Your task to perform on an android device: delete location history Image 0: 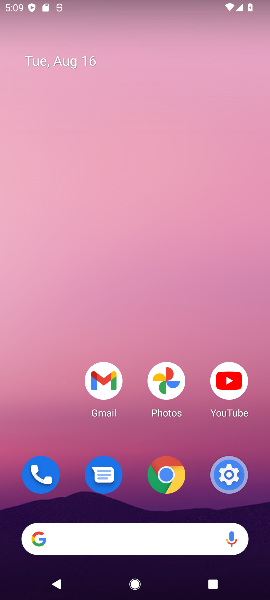
Step 0: drag from (200, 500) to (81, 0)
Your task to perform on an android device: delete location history Image 1: 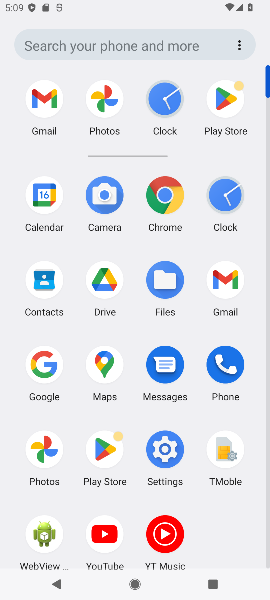
Step 1: click (163, 434)
Your task to perform on an android device: delete location history Image 2: 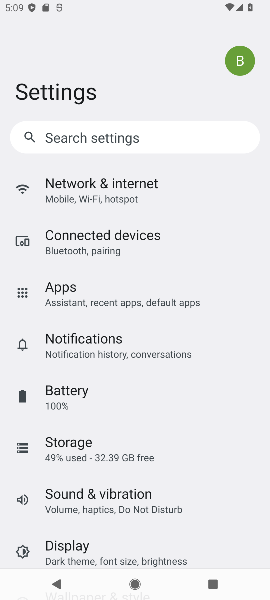
Step 2: drag from (97, 517) to (59, 112)
Your task to perform on an android device: delete location history Image 3: 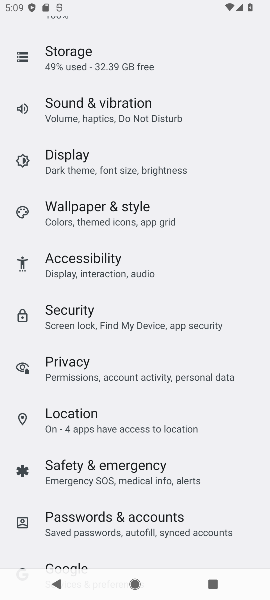
Step 3: click (69, 412)
Your task to perform on an android device: delete location history Image 4: 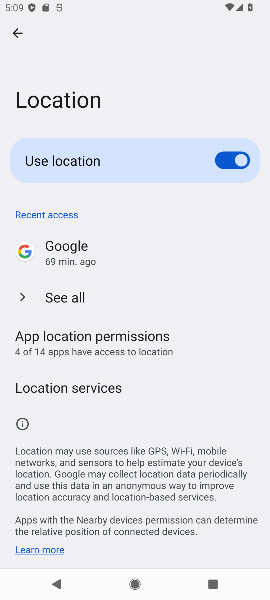
Step 4: click (63, 387)
Your task to perform on an android device: delete location history Image 5: 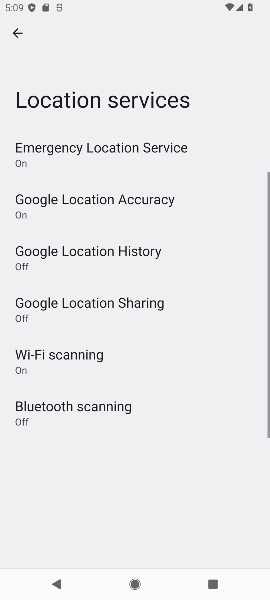
Step 5: click (113, 255)
Your task to perform on an android device: delete location history Image 6: 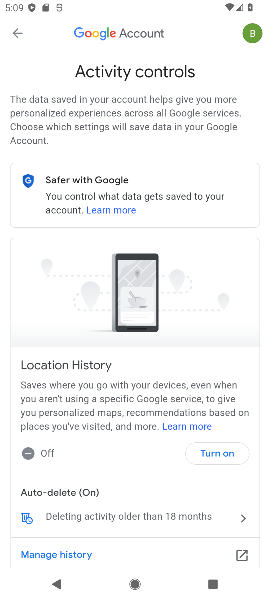
Step 6: click (131, 526)
Your task to perform on an android device: delete location history Image 7: 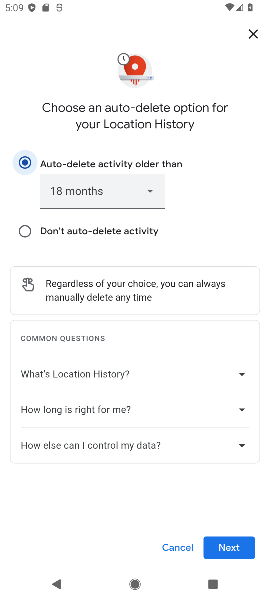
Step 7: click (236, 552)
Your task to perform on an android device: delete location history Image 8: 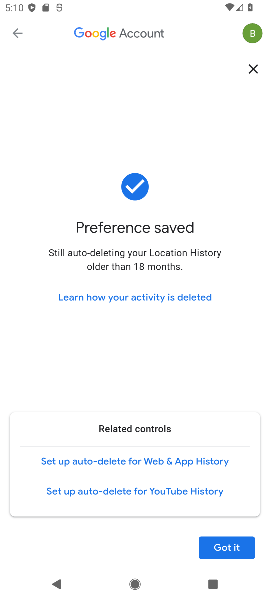
Step 8: task complete